Your task to perform on an android device: change alarm snooze length Image 0: 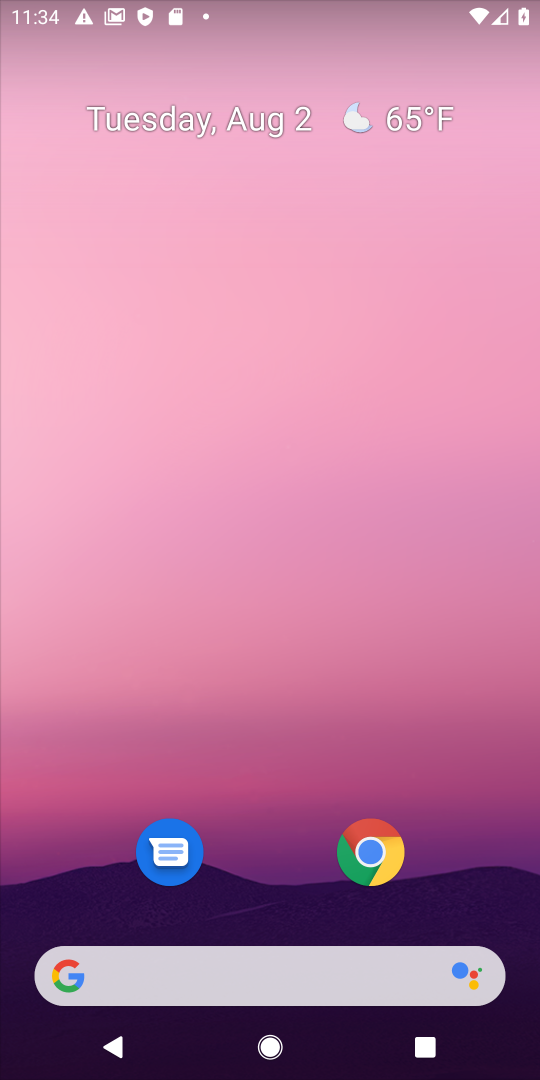
Step 0: drag from (456, 925) to (277, 143)
Your task to perform on an android device: change alarm snooze length Image 1: 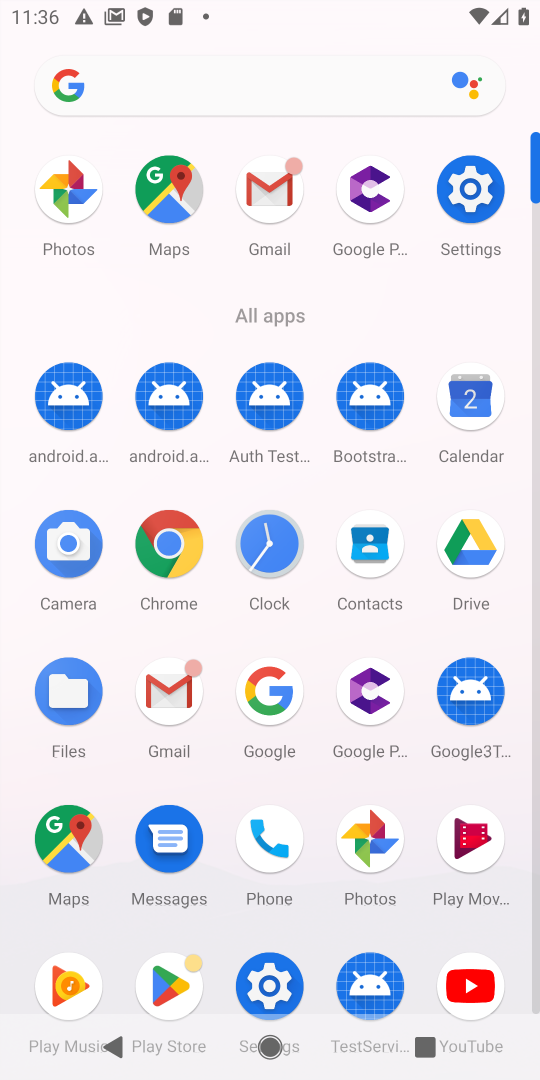
Step 1: click (276, 555)
Your task to perform on an android device: change alarm snooze length Image 2: 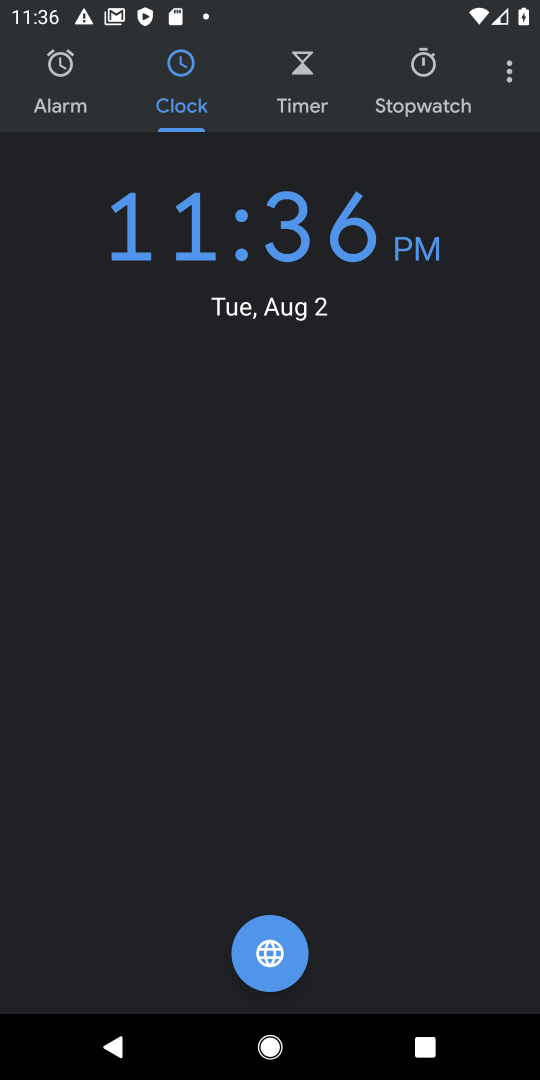
Step 2: click (511, 75)
Your task to perform on an android device: change alarm snooze length Image 3: 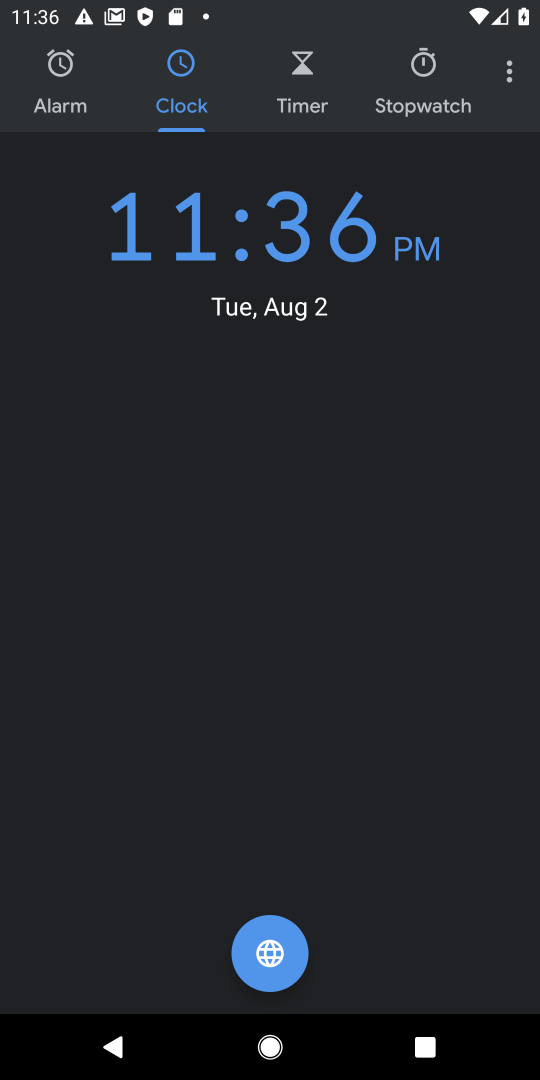
Step 3: click (499, 69)
Your task to perform on an android device: change alarm snooze length Image 4: 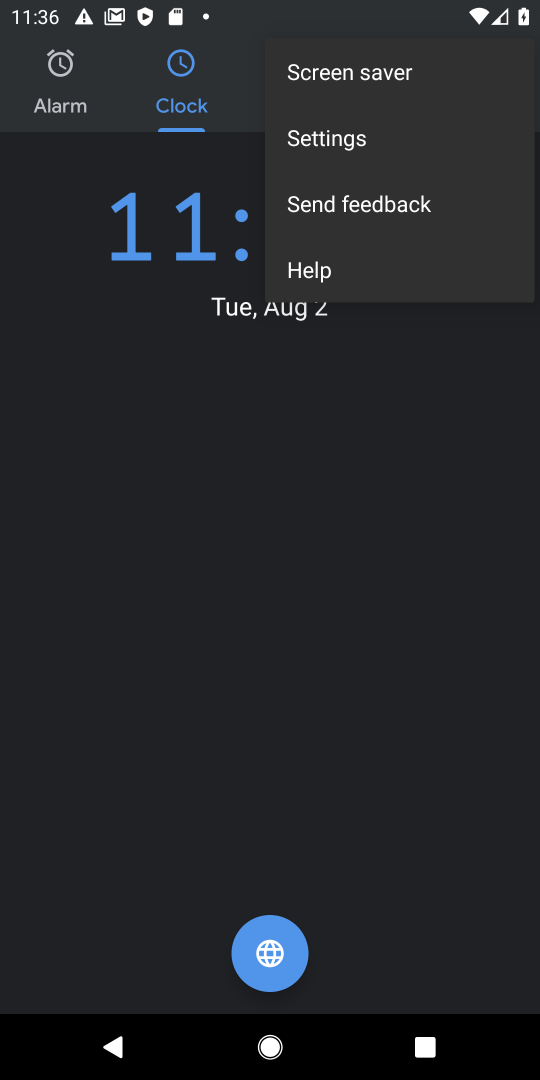
Step 4: click (361, 155)
Your task to perform on an android device: change alarm snooze length Image 5: 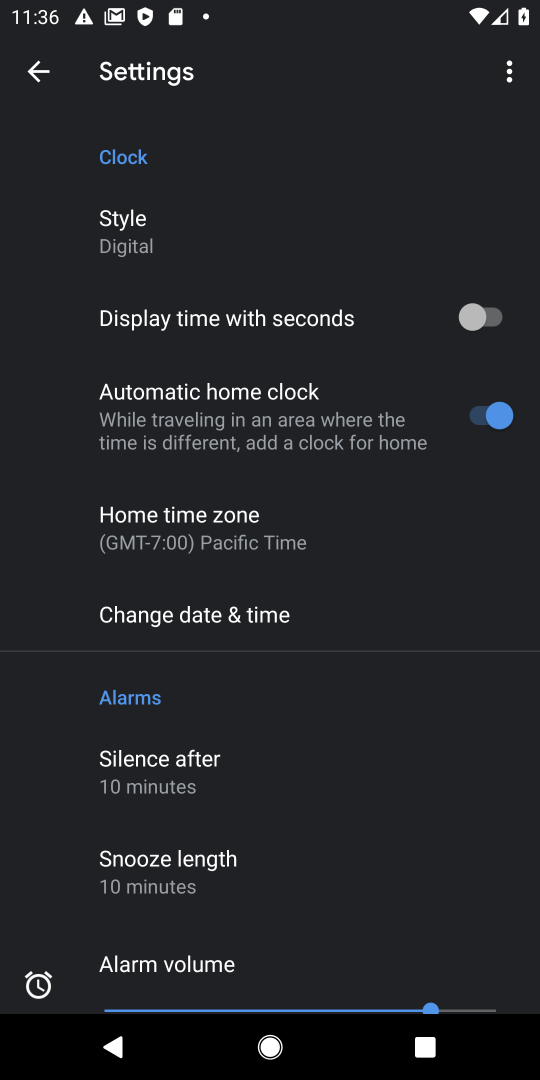
Step 5: click (202, 892)
Your task to perform on an android device: change alarm snooze length Image 6: 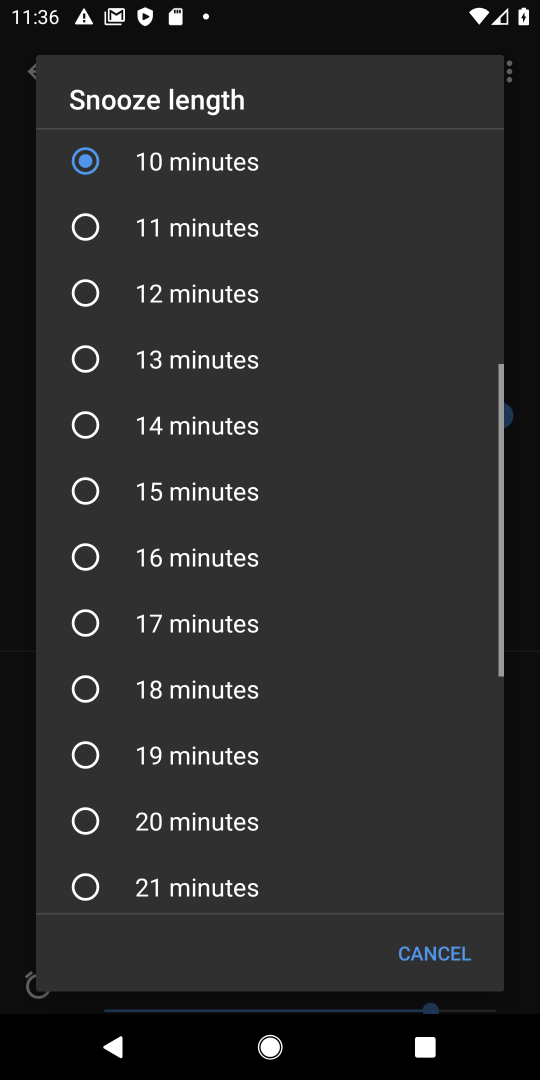
Step 6: click (124, 629)
Your task to perform on an android device: change alarm snooze length Image 7: 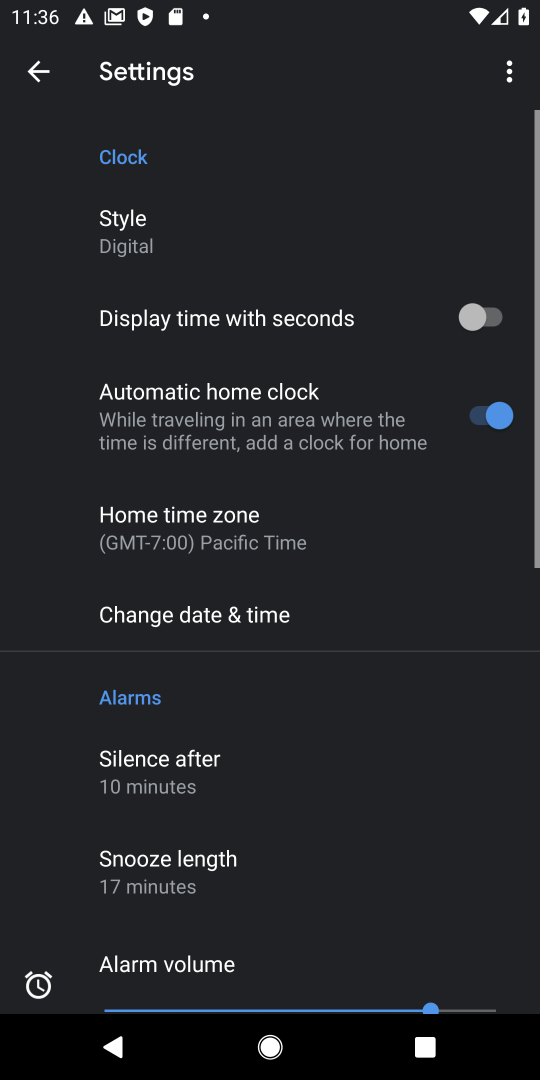
Step 7: task complete